Your task to perform on an android device: Open settings Image 0: 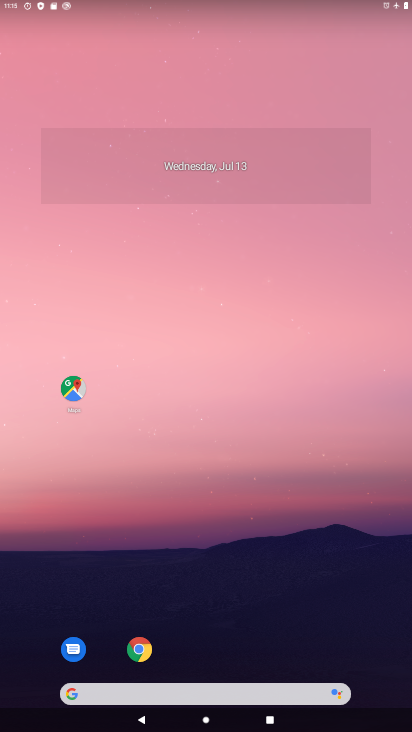
Step 0: drag from (189, 689) to (231, 256)
Your task to perform on an android device: Open settings Image 1: 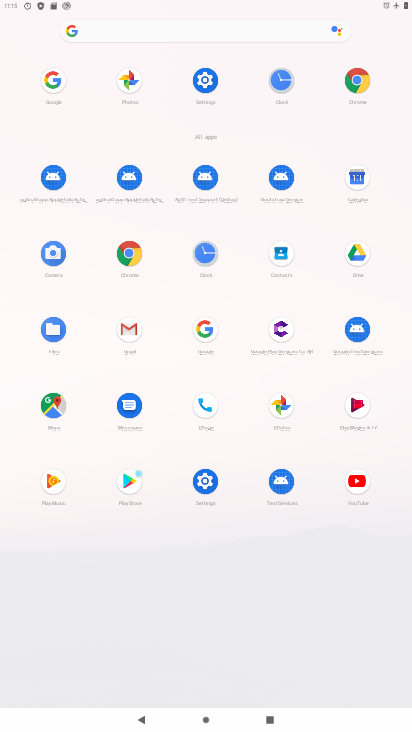
Step 1: click (205, 80)
Your task to perform on an android device: Open settings Image 2: 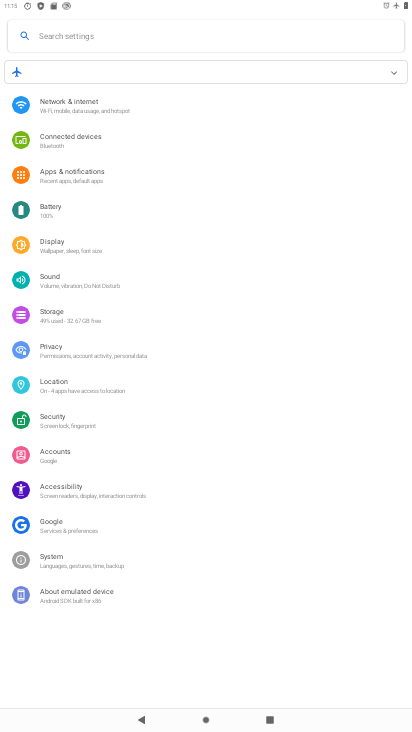
Step 2: task complete